Your task to perform on an android device: turn off javascript in the chrome app Image 0: 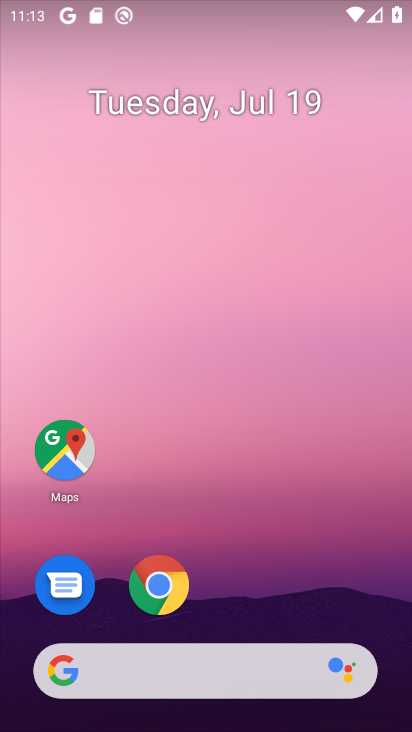
Step 0: click (148, 581)
Your task to perform on an android device: turn off javascript in the chrome app Image 1: 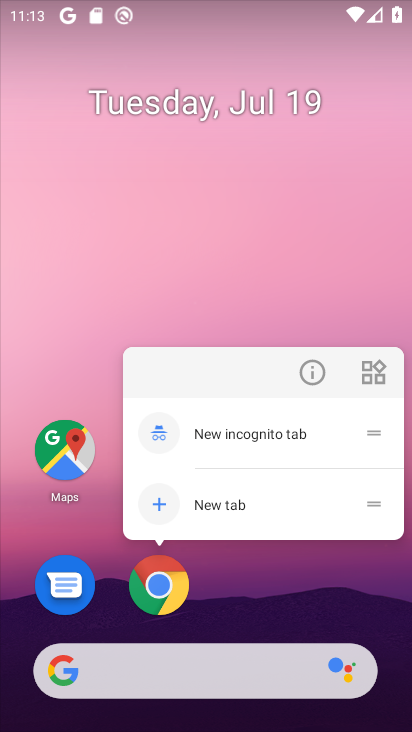
Step 1: click (168, 582)
Your task to perform on an android device: turn off javascript in the chrome app Image 2: 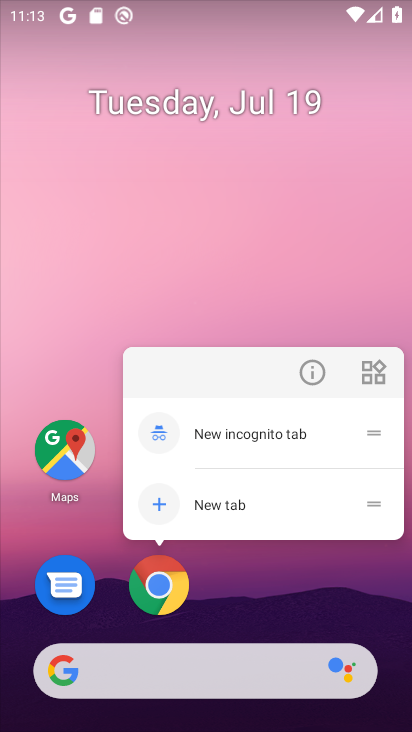
Step 2: click (159, 582)
Your task to perform on an android device: turn off javascript in the chrome app Image 3: 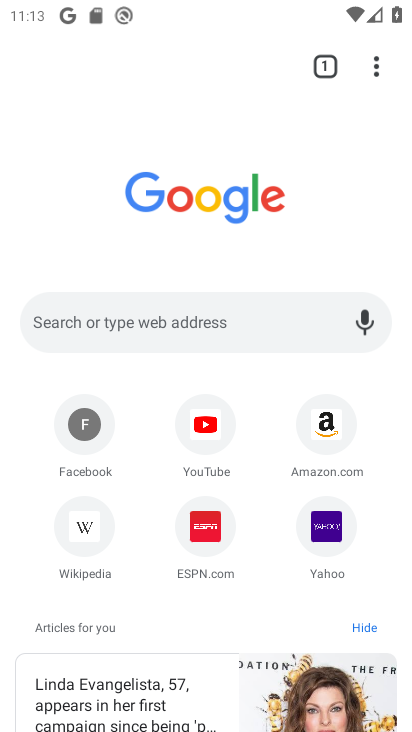
Step 3: drag from (372, 70) to (193, 566)
Your task to perform on an android device: turn off javascript in the chrome app Image 4: 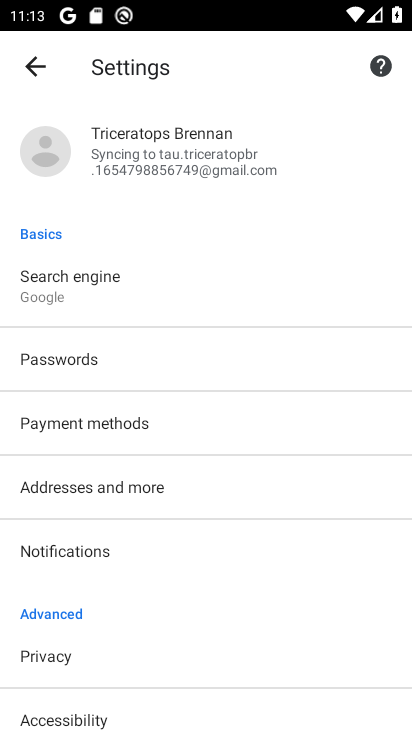
Step 4: drag from (133, 647) to (273, 171)
Your task to perform on an android device: turn off javascript in the chrome app Image 5: 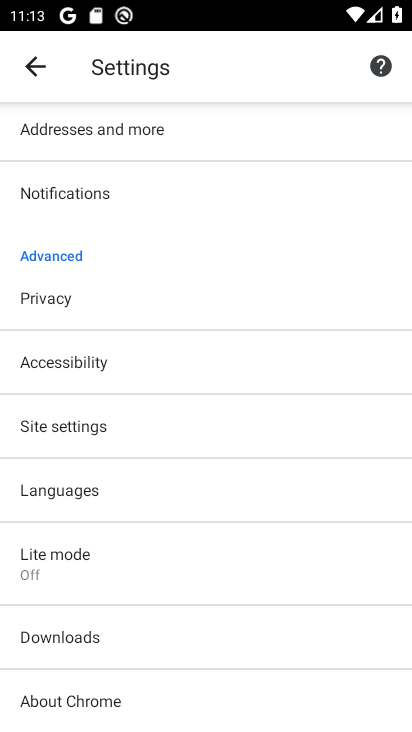
Step 5: click (85, 424)
Your task to perform on an android device: turn off javascript in the chrome app Image 6: 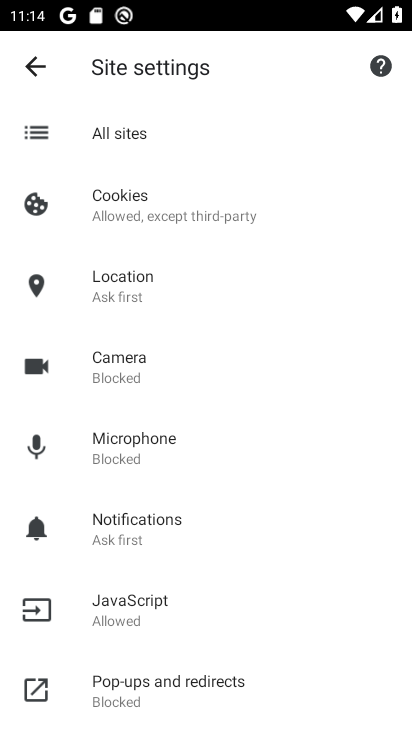
Step 6: click (151, 602)
Your task to perform on an android device: turn off javascript in the chrome app Image 7: 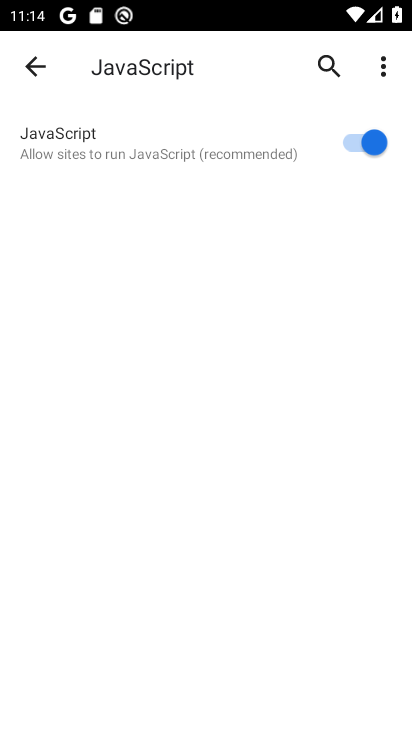
Step 7: click (354, 144)
Your task to perform on an android device: turn off javascript in the chrome app Image 8: 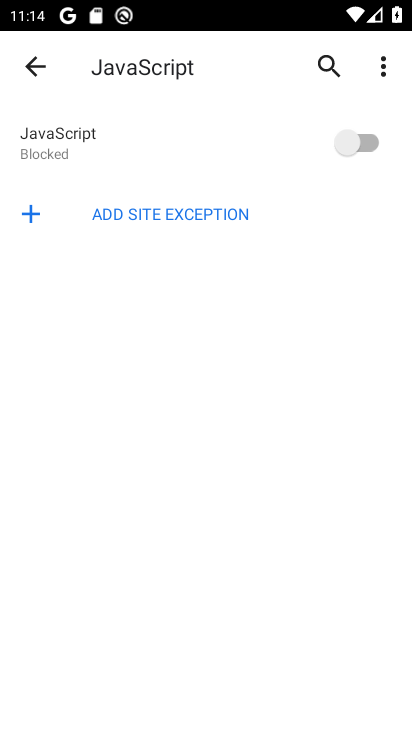
Step 8: task complete